Your task to perform on an android device: turn smart compose on in the gmail app Image 0: 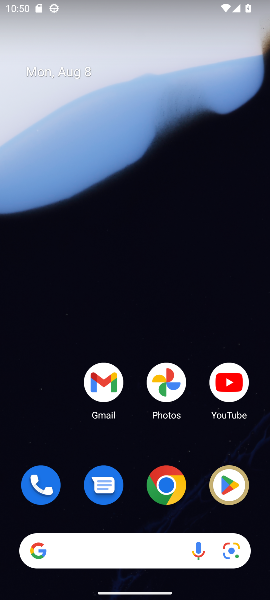
Step 0: drag from (188, 445) to (183, 167)
Your task to perform on an android device: turn smart compose on in the gmail app Image 1: 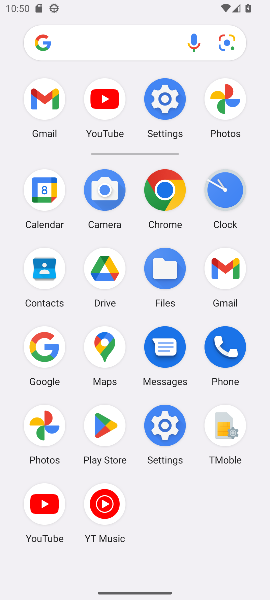
Step 1: click (231, 261)
Your task to perform on an android device: turn smart compose on in the gmail app Image 2: 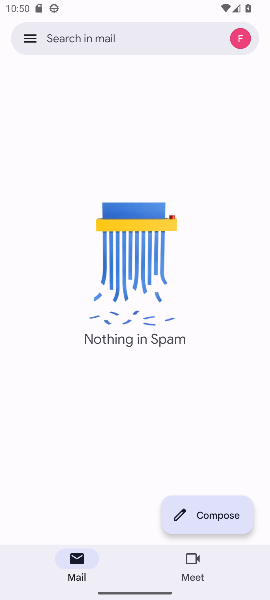
Step 2: click (28, 34)
Your task to perform on an android device: turn smart compose on in the gmail app Image 3: 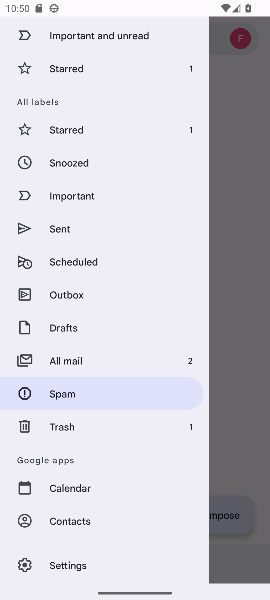
Step 3: drag from (96, 527) to (148, 155)
Your task to perform on an android device: turn smart compose on in the gmail app Image 4: 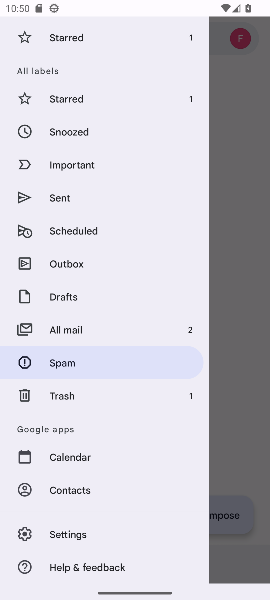
Step 4: click (75, 535)
Your task to perform on an android device: turn smart compose on in the gmail app Image 5: 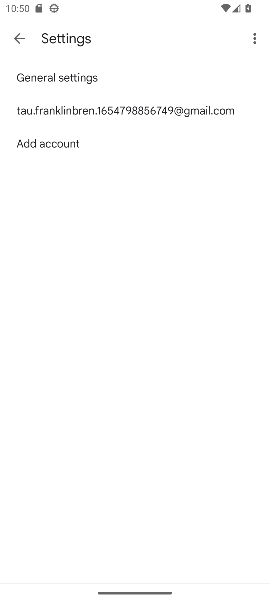
Step 5: click (91, 104)
Your task to perform on an android device: turn smart compose on in the gmail app Image 6: 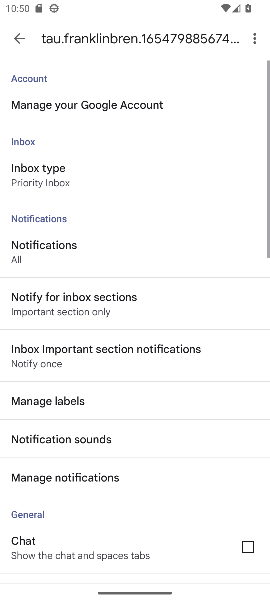
Step 6: task complete